Your task to perform on an android device: change the clock display to show seconds Image 0: 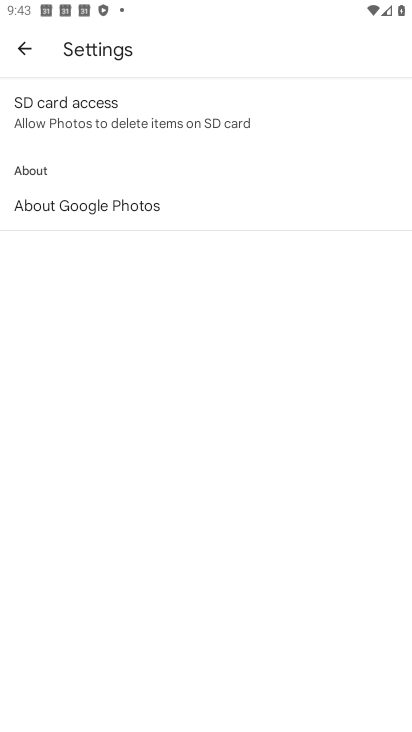
Step 0: press home button
Your task to perform on an android device: change the clock display to show seconds Image 1: 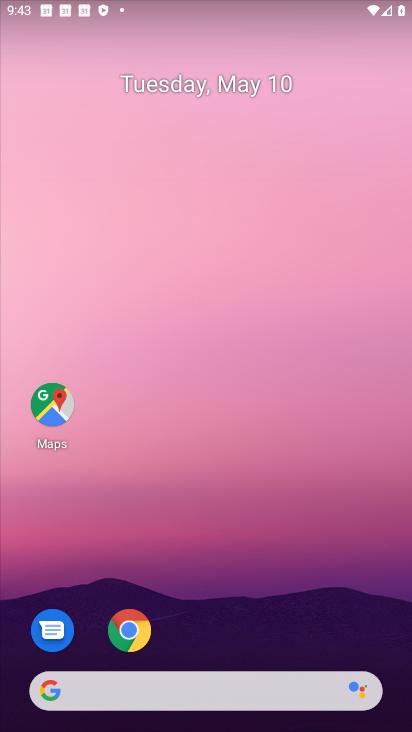
Step 1: drag from (244, 693) to (323, 129)
Your task to perform on an android device: change the clock display to show seconds Image 2: 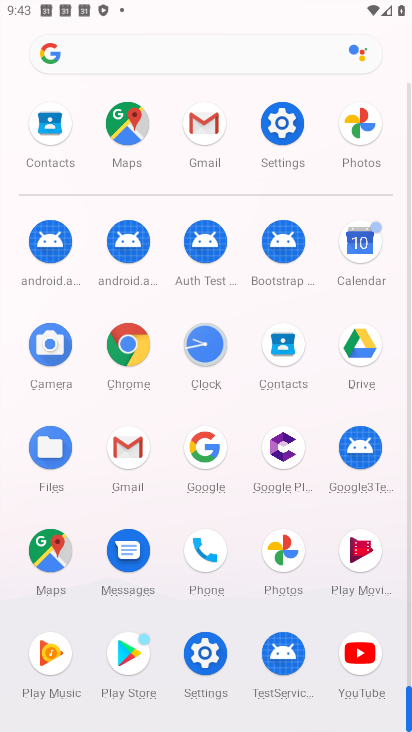
Step 2: click (204, 347)
Your task to perform on an android device: change the clock display to show seconds Image 3: 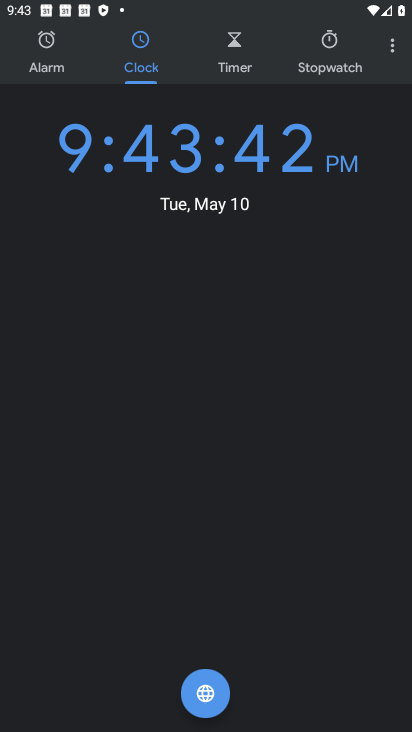
Step 3: click (397, 38)
Your task to perform on an android device: change the clock display to show seconds Image 4: 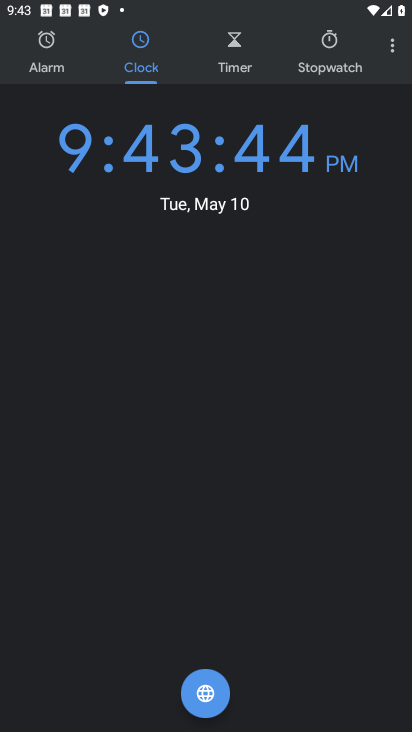
Step 4: click (380, 93)
Your task to perform on an android device: change the clock display to show seconds Image 5: 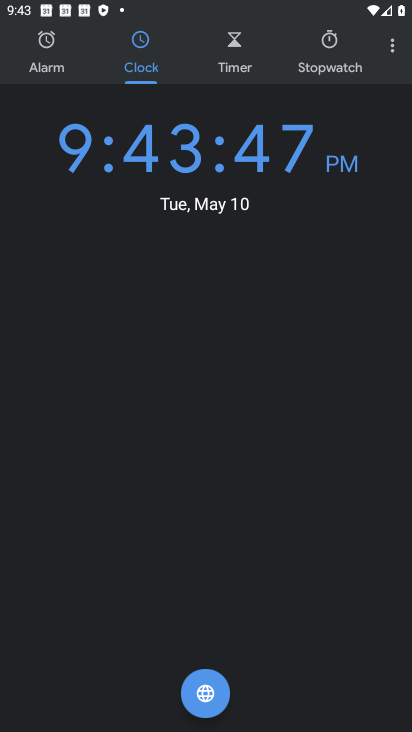
Step 5: click (394, 46)
Your task to perform on an android device: change the clock display to show seconds Image 6: 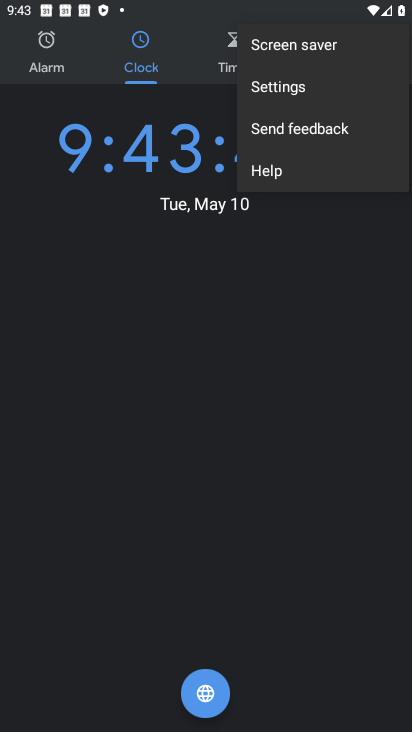
Step 6: click (321, 90)
Your task to perform on an android device: change the clock display to show seconds Image 7: 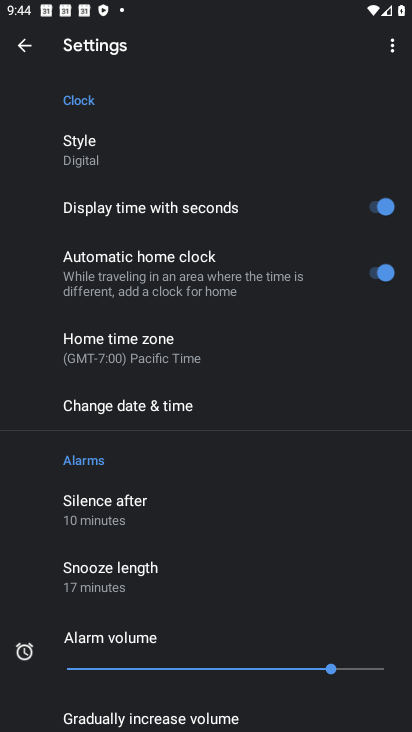
Step 7: task complete